Your task to perform on an android device: turn off improve location accuracy Image 0: 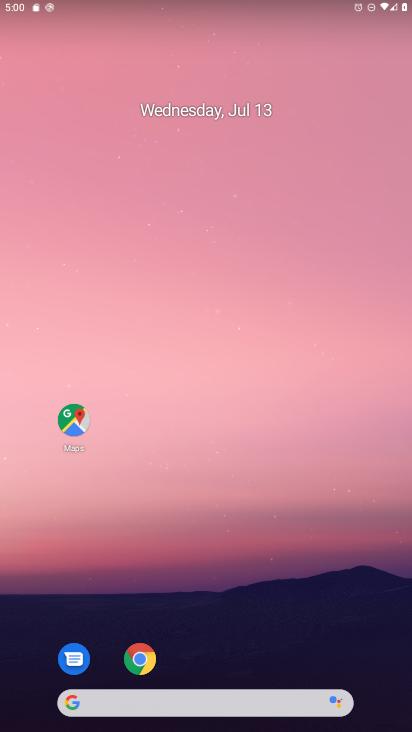
Step 0: drag from (348, 581) to (227, 101)
Your task to perform on an android device: turn off improve location accuracy Image 1: 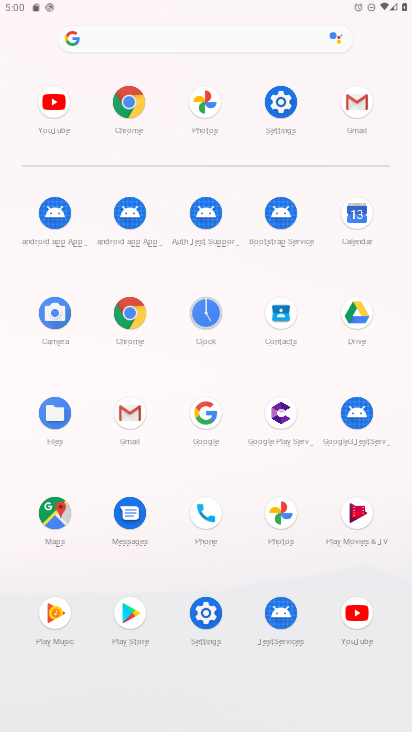
Step 1: click (283, 91)
Your task to perform on an android device: turn off improve location accuracy Image 2: 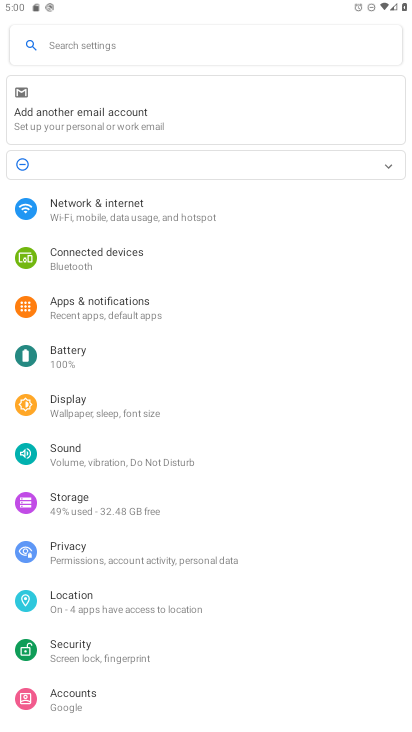
Step 2: click (88, 601)
Your task to perform on an android device: turn off improve location accuracy Image 3: 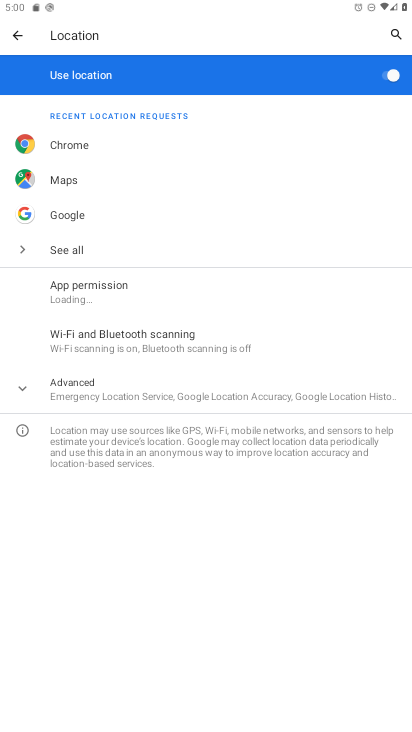
Step 3: click (126, 399)
Your task to perform on an android device: turn off improve location accuracy Image 4: 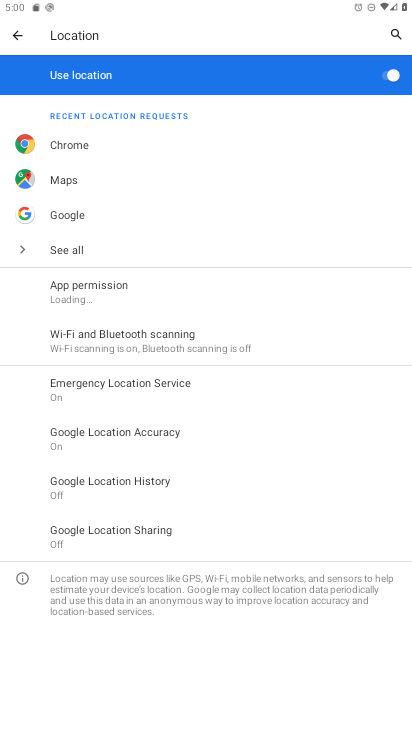
Step 4: click (137, 427)
Your task to perform on an android device: turn off improve location accuracy Image 5: 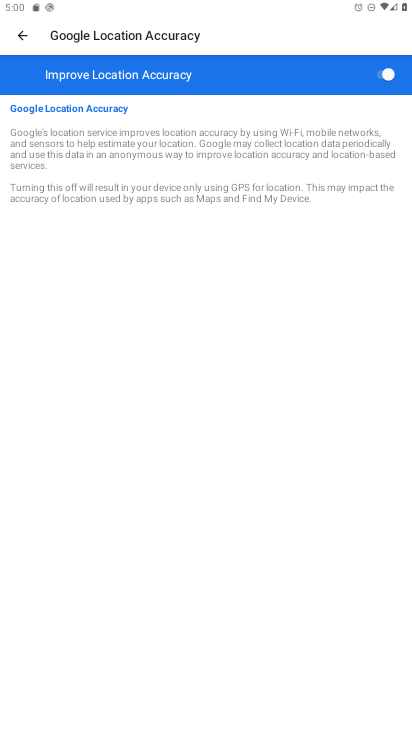
Step 5: click (384, 64)
Your task to perform on an android device: turn off improve location accuracy Image 6: 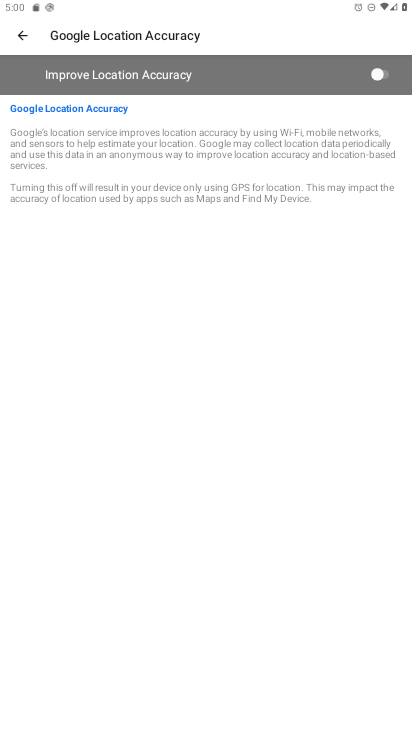
Step 6: task complete